Your task to perform on an android device: snooze an email in the gmail app Image 0: 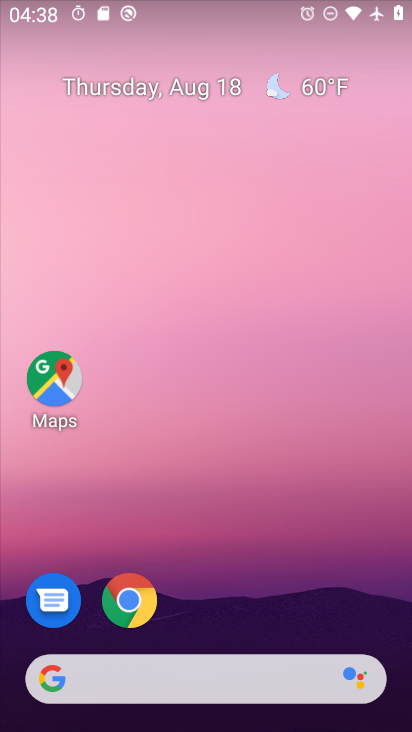
Step 0: press home button
Your task to perform on an android device: snooze an email in the gmail app Image 1: 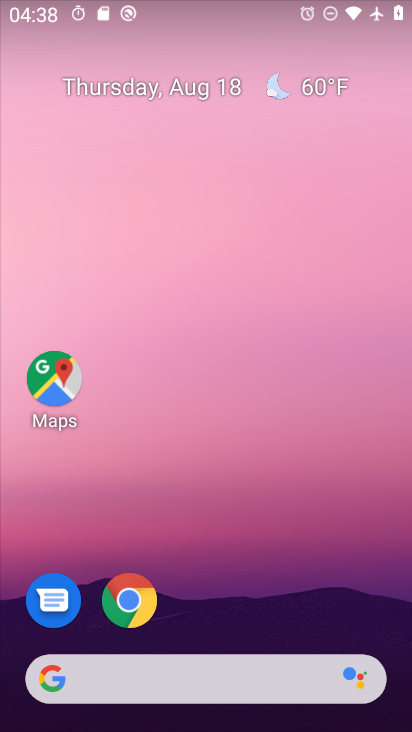
Step 1: drag from (258, 633) to (279, 135)
Your task to perform on an android device: snooze an email in the gmail app Image 2: 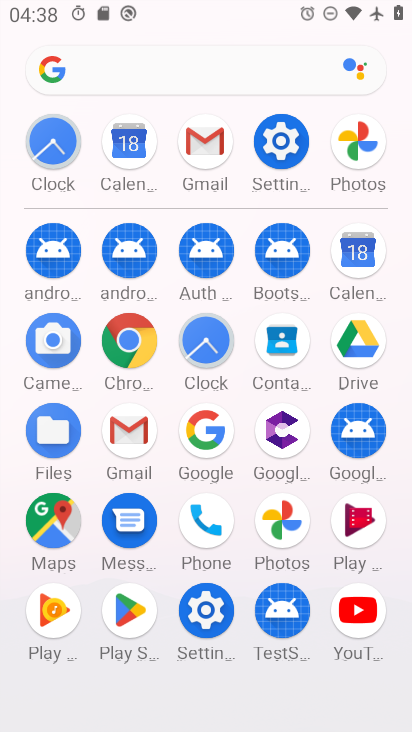
Step 2: click (211, 147)
Your task to perform on an android device: snooze an email in the gmail app Image 3: 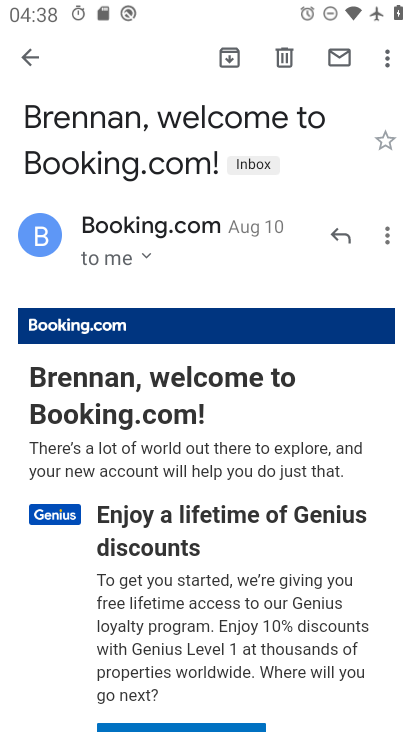
Step 3: press back button
Your task to perform on an android device: snooze an email in the gmail app Image 4: 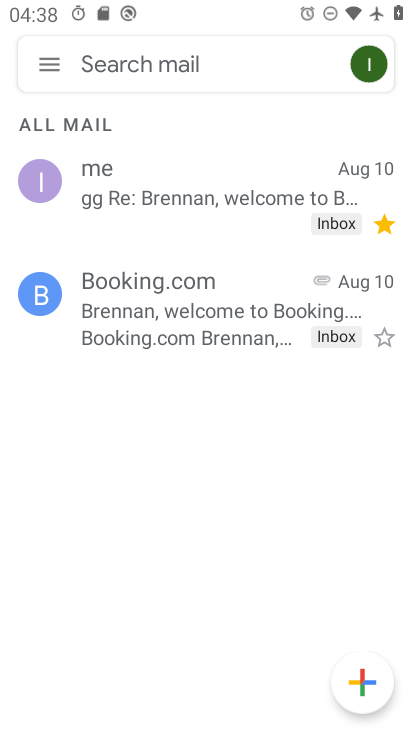
Step 4: click (240, 199)
Your task to perform on an android device: snooze an email in the gmail app Image 5: 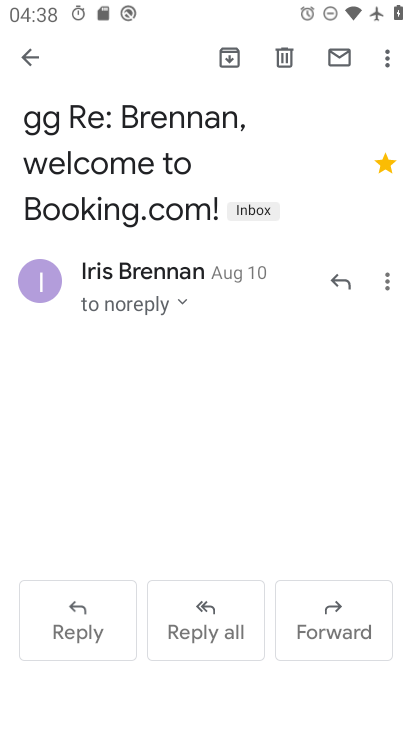
Step 5: click (385, 56)
Your task to perform on an android device: snooze an email in the gmail app Image 6: 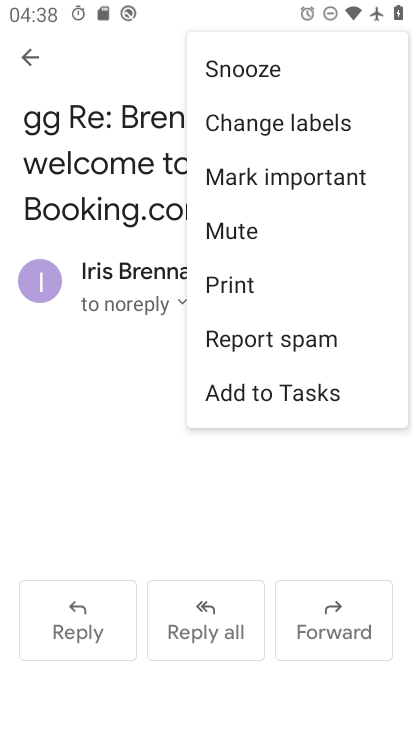
Step 6: click (226, 75)
Your task to perform on an android device: snooze an email in the gmail app Image 7: 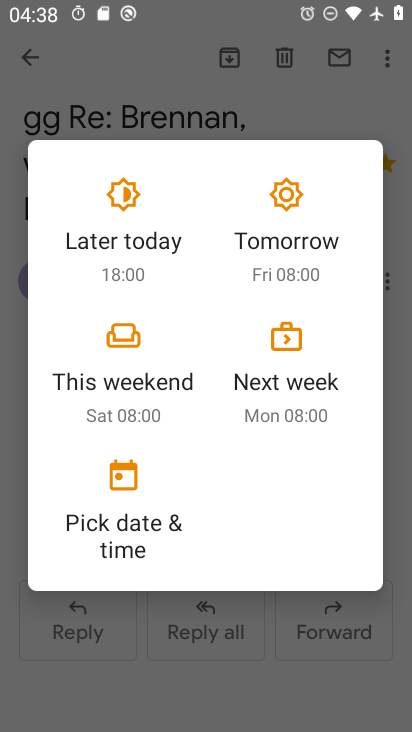
Step 7: click (128, 523)
Your task to perform on an android device: snooze an email in the gmail app Image 8: 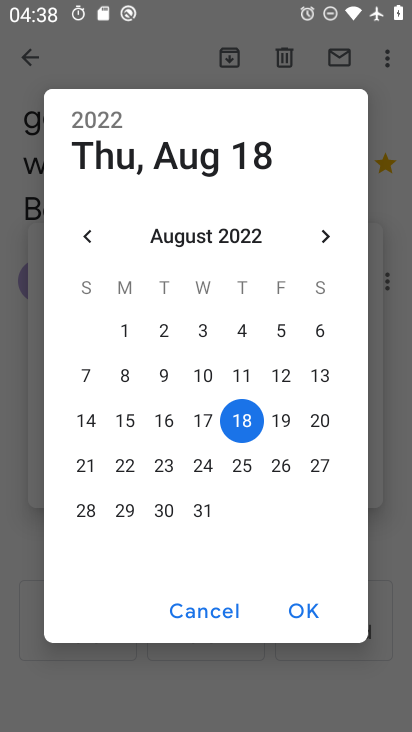
Step 8: click (317, 611)
Your task to perform on an android device: snooze an email in the gmail app Image 9: 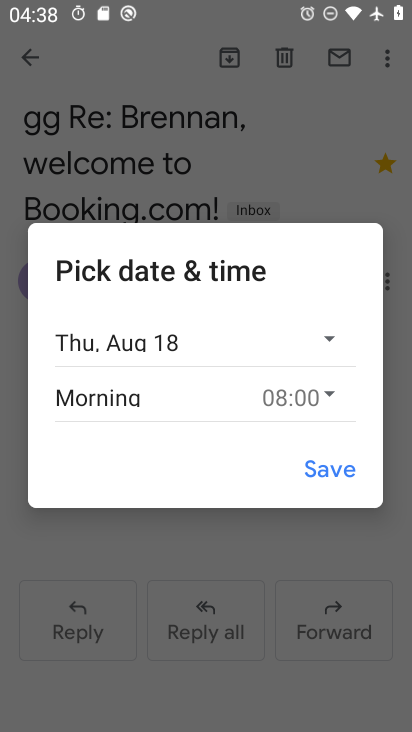
Step 9: click (327, 476)
Your task to perform on an android device: snooze an email in the gmail app Image 10: 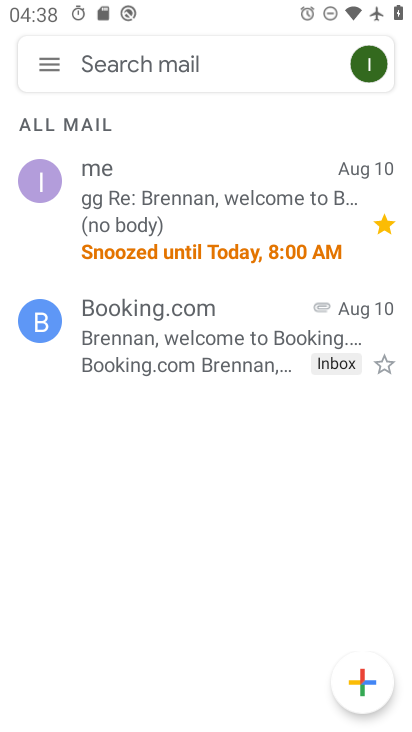
Step 10: task complete